Your task to perform on an android device: Search for pizza restaurants on Maps Image 0: 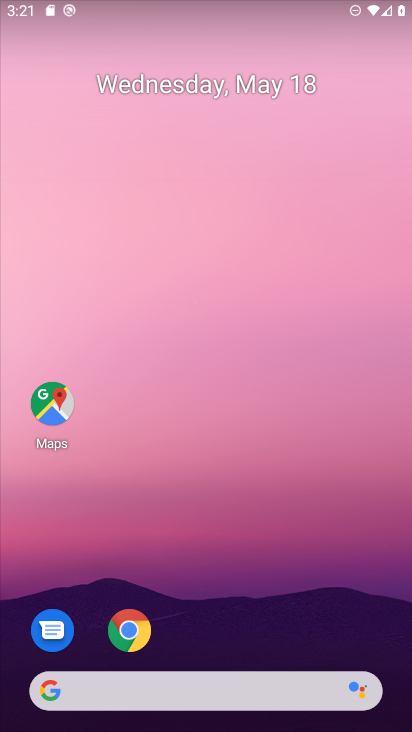
Step 0: press home button
Your task to perform on an android device: Search for pizza restaurants on Maps Image 1: 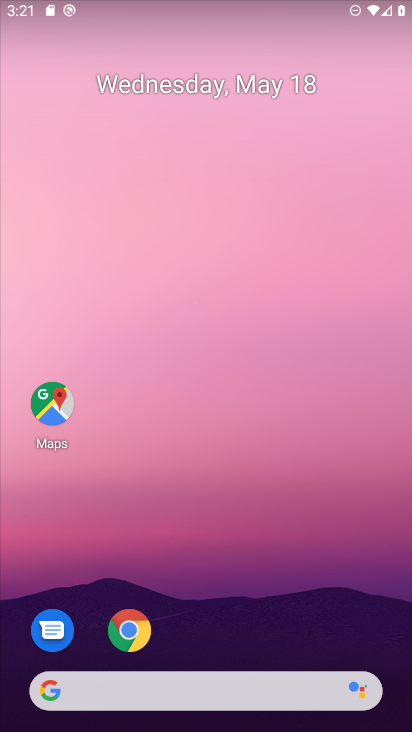
Step 1: drag from (208, 647) to (287, 4)
Your task to perform on an android device: Search for pizza restaurants on Maps Image 2: 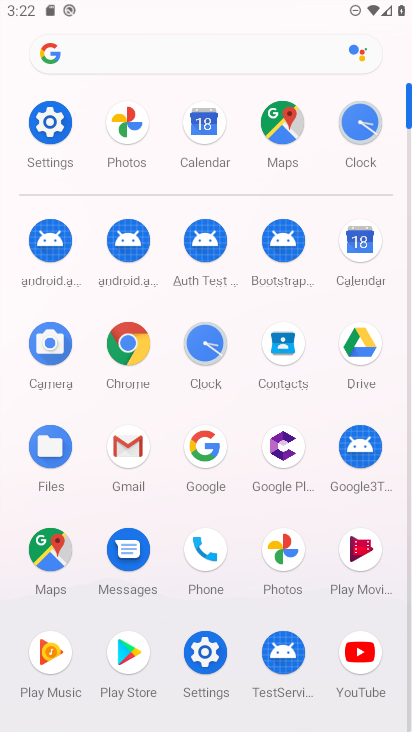
Step 2: click (279, 125)
Your task to perform on an android device: Search for pizza restaurants on Maps Image 3: 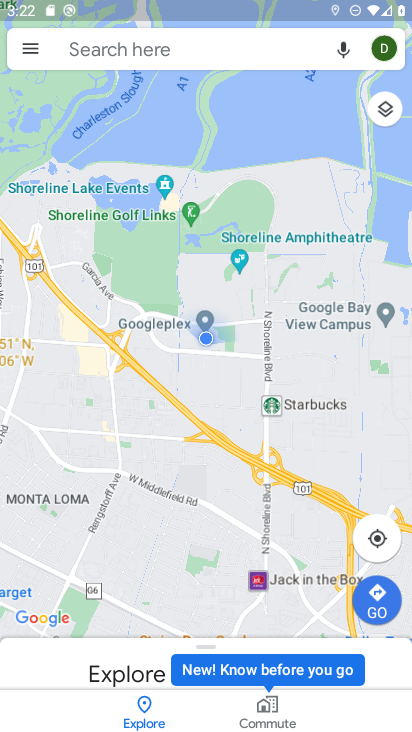
Step 3: click (174, 41)
Your task to perform on an android device: Search for pizza restaurants on Maps Image 4: 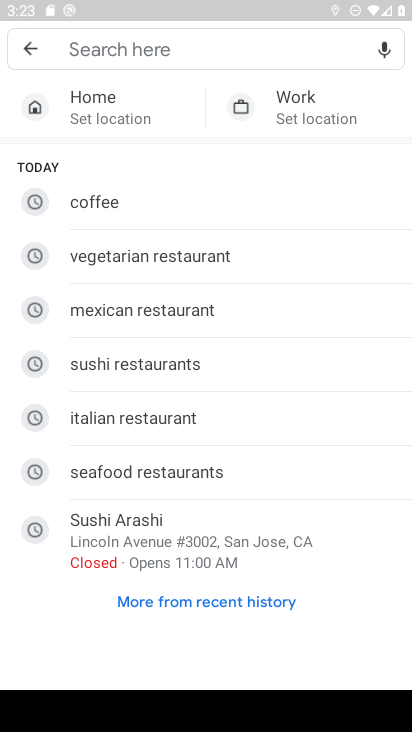
Step 4: type "pizza"
Your task to perform on an android device: Search for pizza restaurants on Maps Image 5: 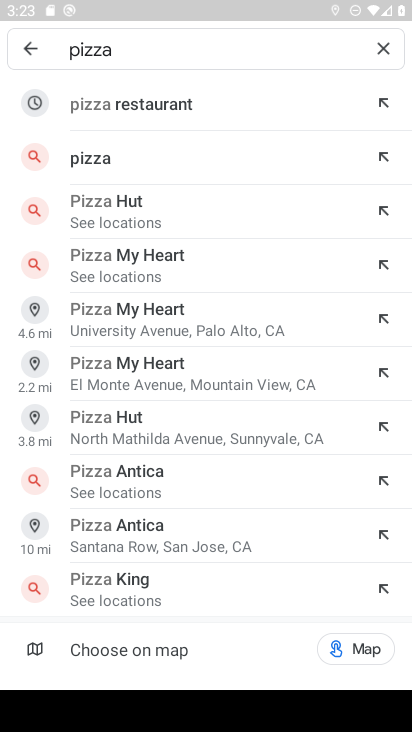
Step 5: click (184, 104)
Your task to perform on an android device: Search for pizza restaurants on Maps Image 6: 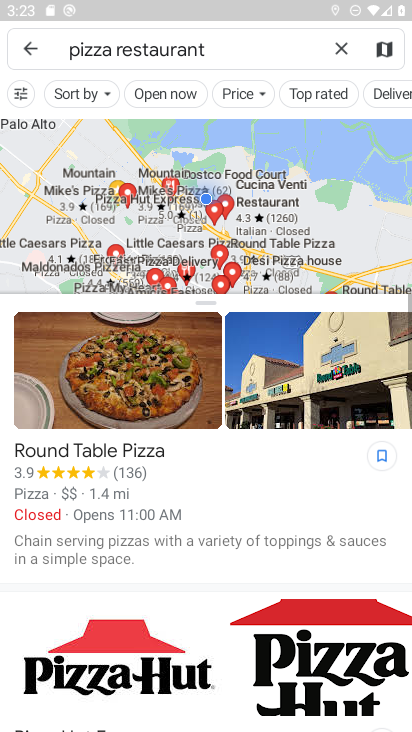
Step 6: drag from (180, 600) to (208, 389)
Your task to perform on an android device: Search for pizza restaurants on Maps Image 7: 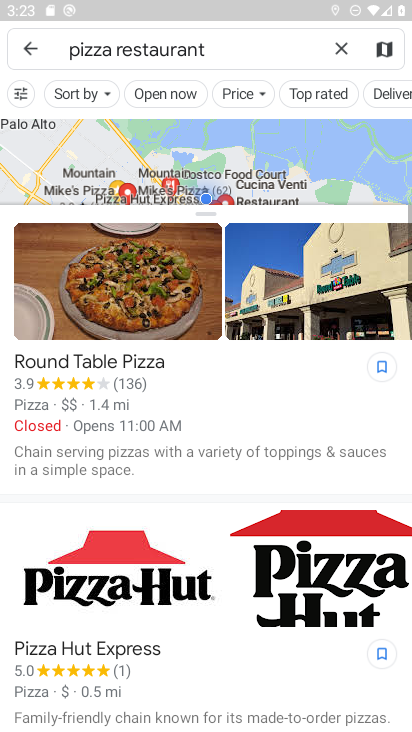
Step 7: click (237, 155)
Your task to perform on an android device: Search for pizza restaurants on Maps Image 8: 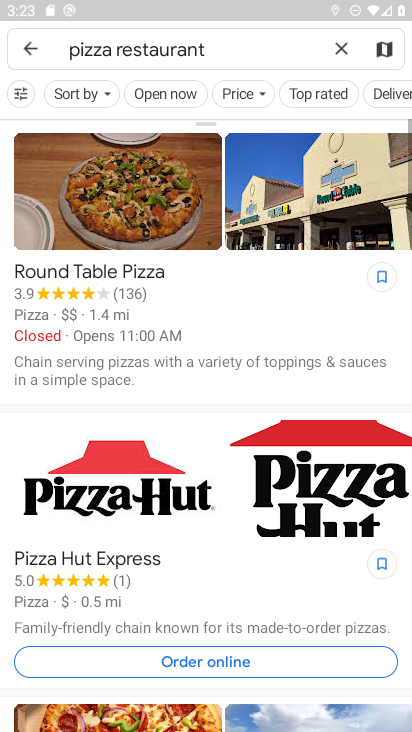
Step 8: drag from (222, 624) to (239, 387)
Your task to perform on an android device: Search for pizza restaurants on Maps Image 9: 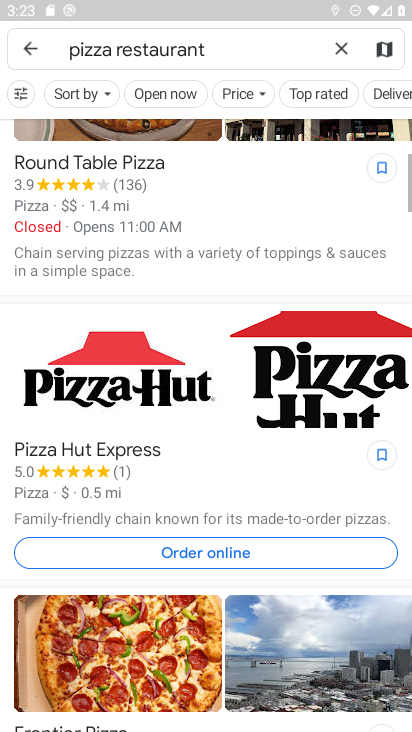
Step 9: click (253, 188)
Your task to perform on an android device: Search for pizza restaurants on Maps Image 10: 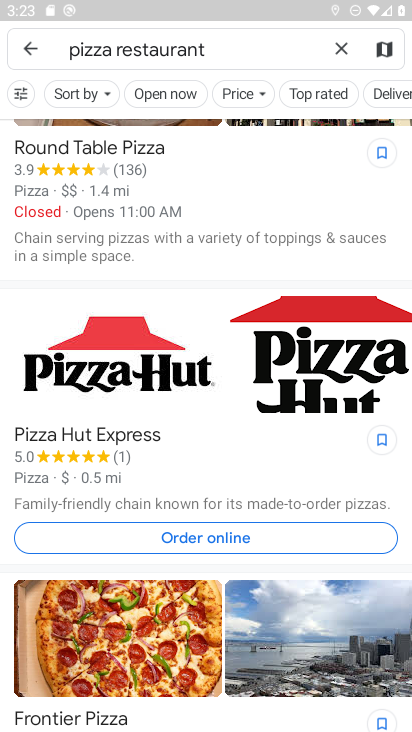
Step 10: task complete